Your task to perform on an android device: Clear all items from cart on target. Add "energizer triple a" to the cart on target Image 0: 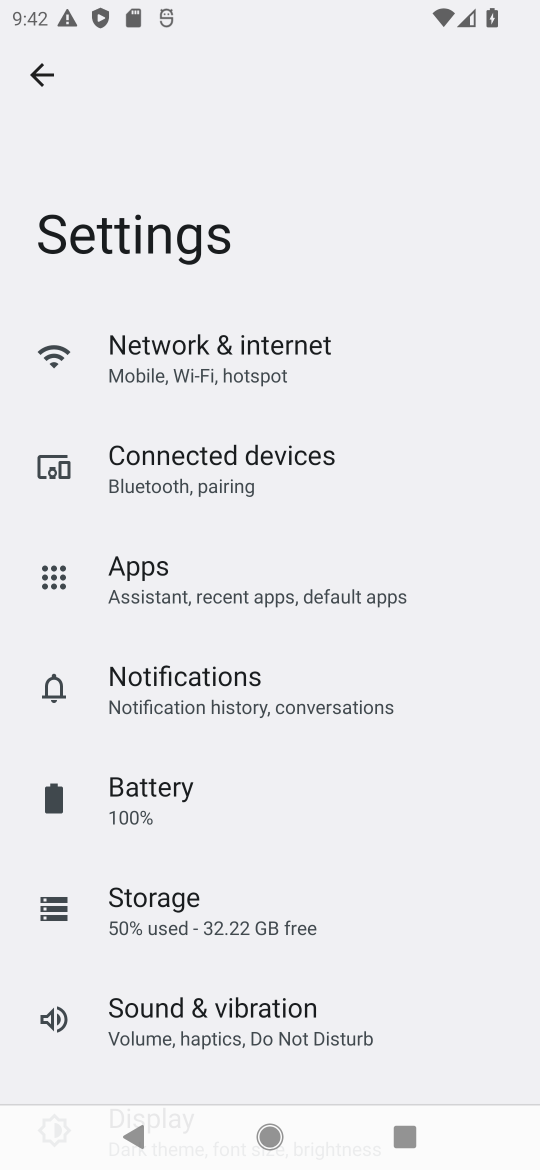
Step 0: press home button
Your task to perform on an android device: Clear all items from cart on target. Add "energizer triple a" to the cart on target Image 1: 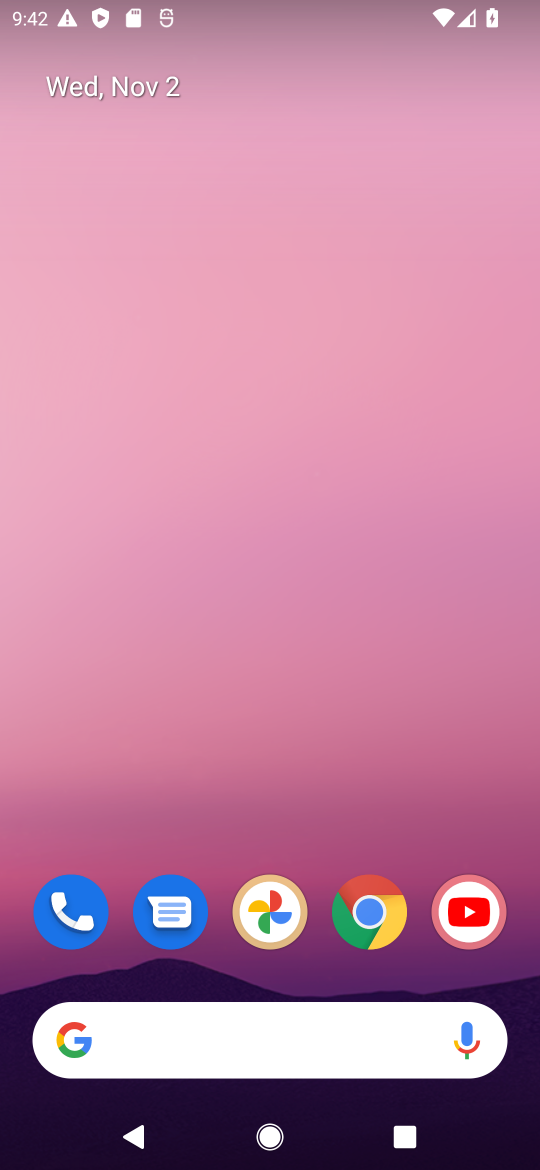
Step 1: drag from (326, 1100) to (322, 101)
Your task to perform on an android device: Clear all items from cart on target. Add "energizer triple a" to the cart on target Image 2: 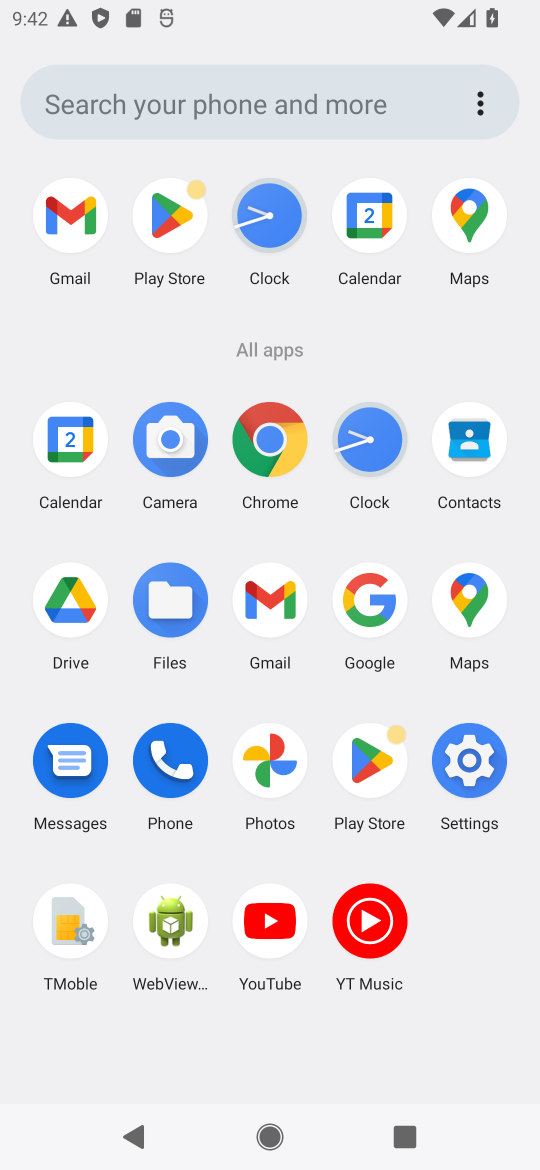
Step 2: click (267, 444)
Your task to perform on an android device: Clear all items from cart on target. Add "energizer triple a" to the cart on target Image 3: 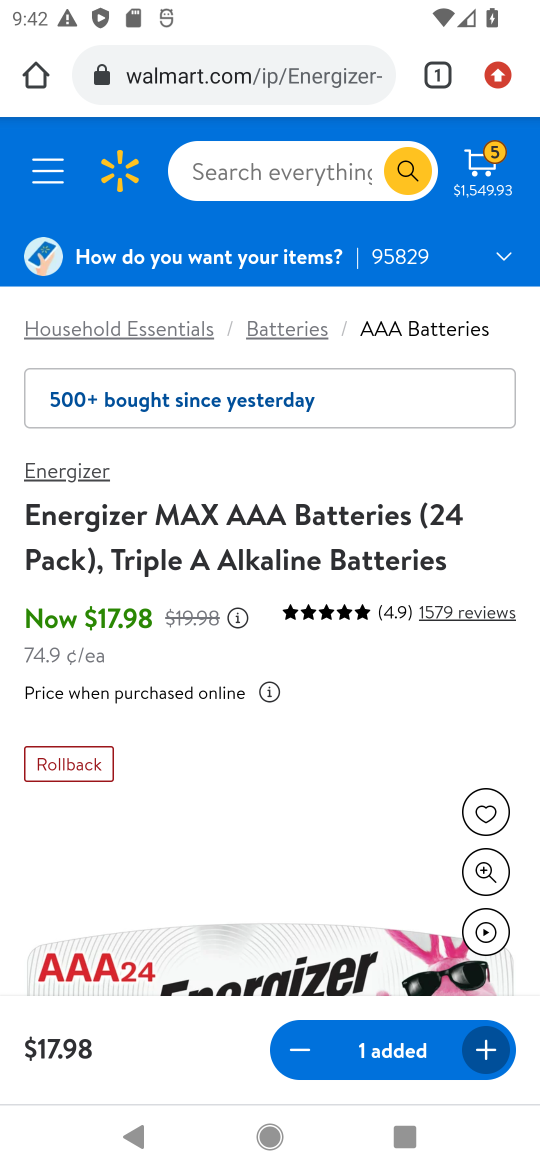
Step 3: task complete